Your task to perform on an android device: Open the calendar and show me this week's events? Image 0: 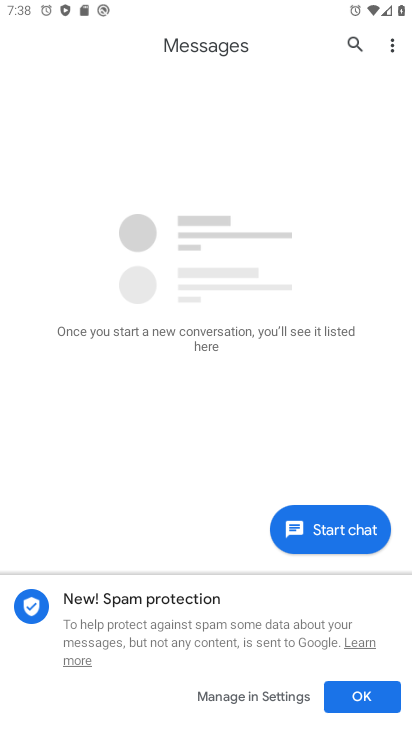
Step 0: press home button
Your task to perform on an android device: Open the calendar and show me this week's events? Image 1: 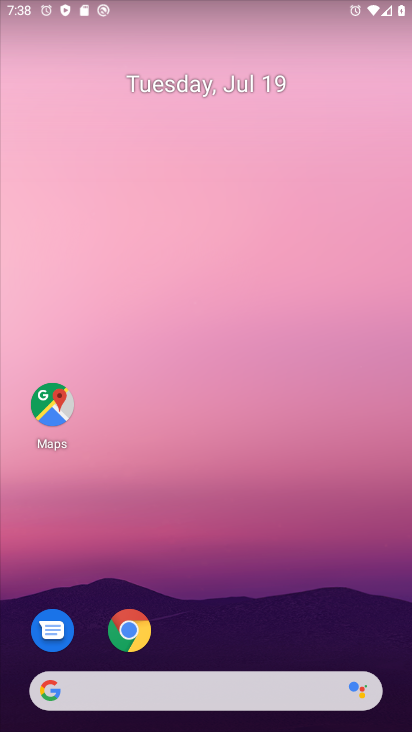
Step 1: drag from (314, 457) to (318, 236)
Your task to perform on an android device: Open the calendar and show me this week's events? Image 2: 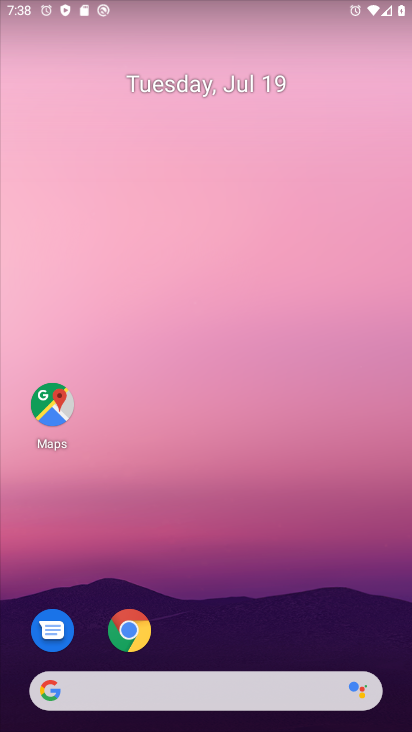
Step 2: drag from (301, 354) to (346, 104)
Your task to perform on an android device: Open the calendar and show me this week's events? Image 3: 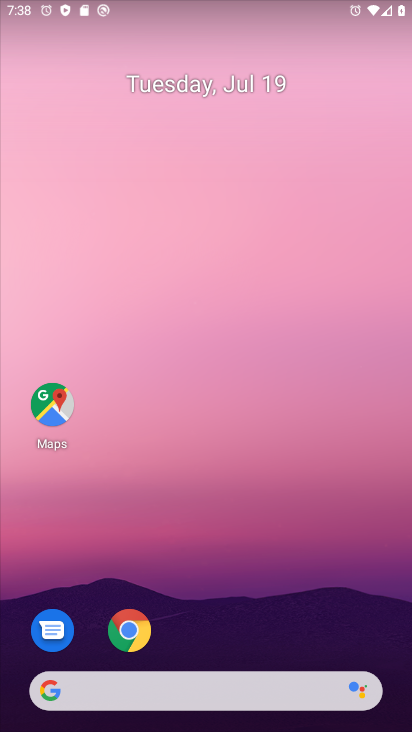
Step 3: drag from (296, 545) to (355, 39)
Your task to perform on an android device: Open the calendar and show me this week's events? Image 4: 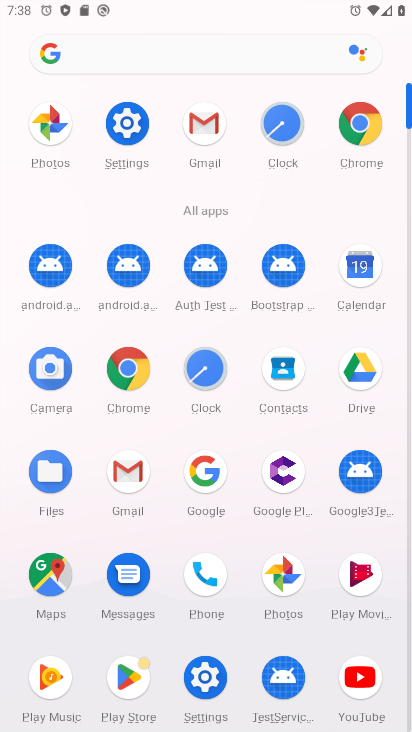
Step 4: click (356, 261)
Your task to perform on an android device: Open the calendar and show me this week's events? Image 5: 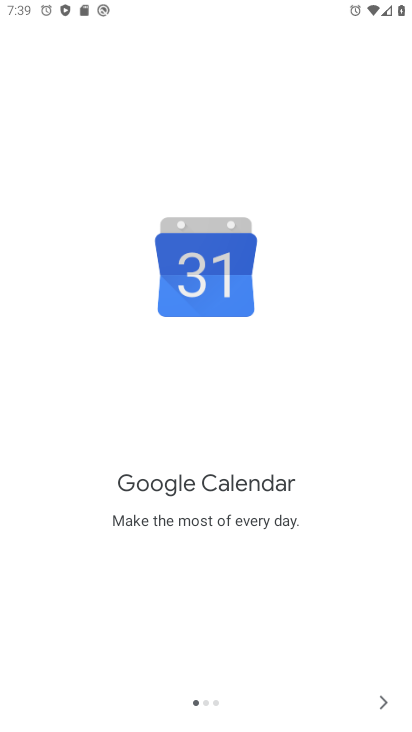
Step 5: click (391, 698)
Your task to perform on an android device: Open the calendar and show me this week's events? Image 6: 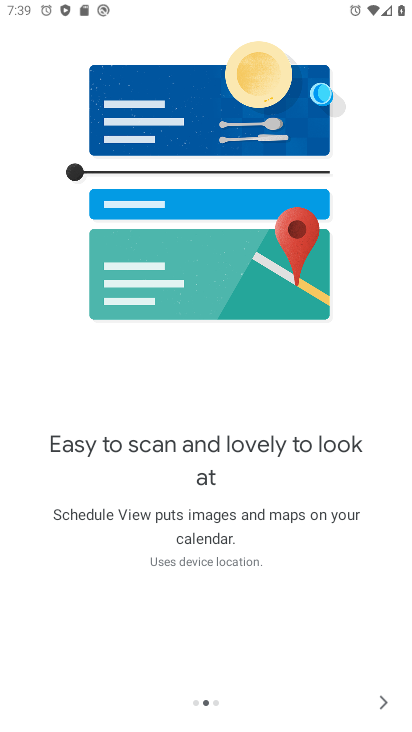
Step 6: click (379, 704)
Your task to perform on an android device: Open the calendar and show me this week's events? Image 7: 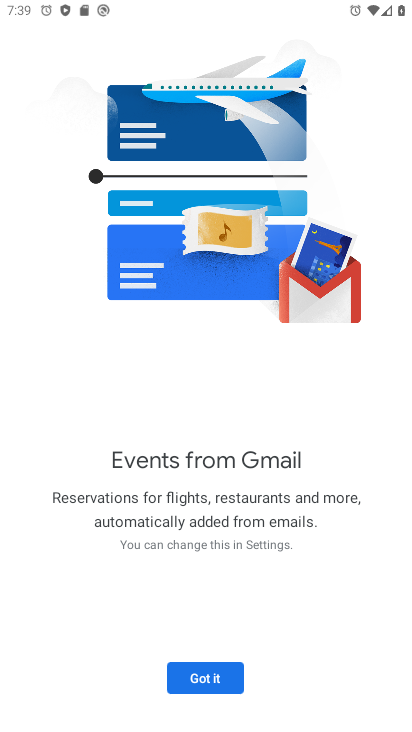
Step 7: click (210, 671)
Your task to perform on an android device: Open the calendar and show me this week's events? Image 8: 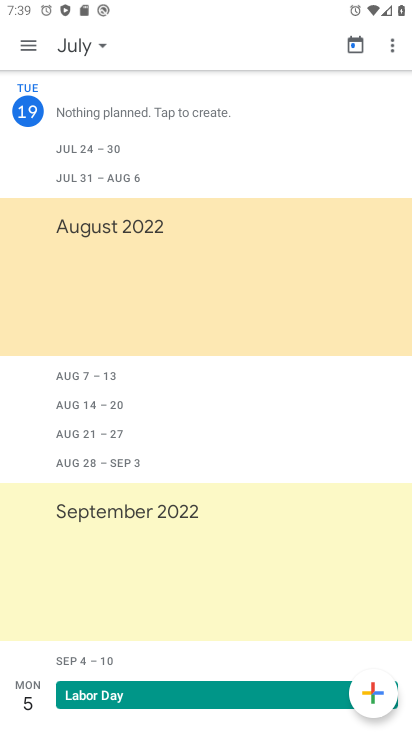
Step 8: task complete